Your task to perform on an android device: check data usage Image 0: 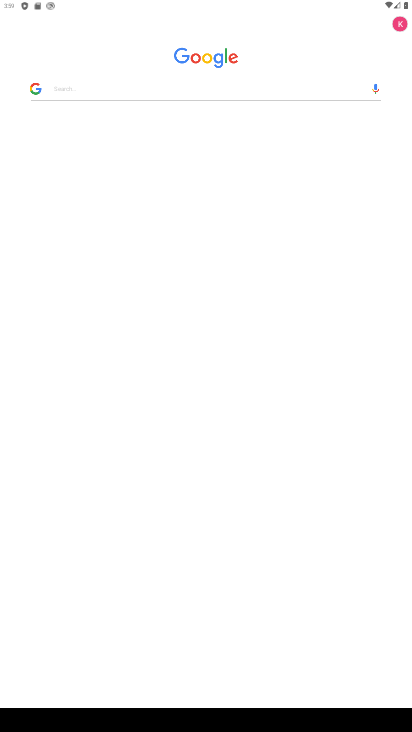
Step 0: press home button
Your task to perform on an android device: check data usage Image 1: 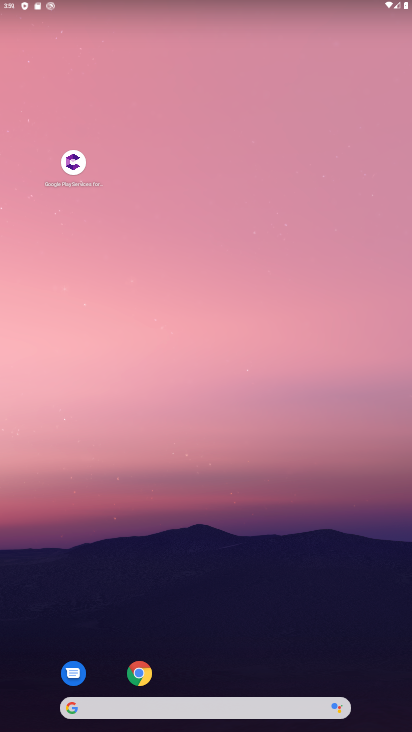
Step 1: drag from (180, 674) to (185, 92)
Your task to perform on an android device: check data usage Image 2: 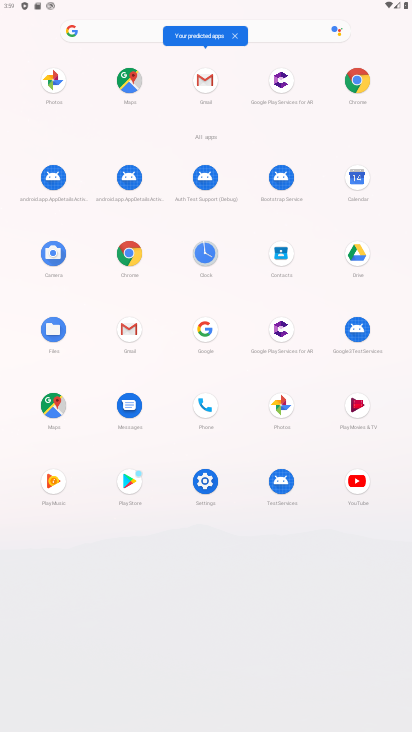
Step 2: click (202, 471)
Your task to perform on an android device: check data usage Image 3: 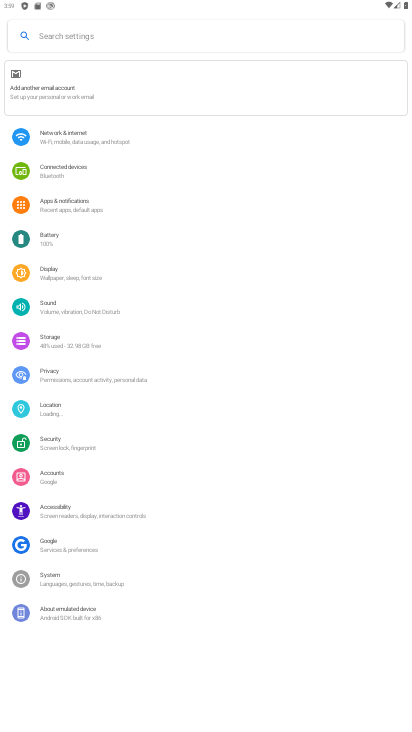
Step 3: click (61, 132)
Your task to perform on an android device: check data usage Image 4: 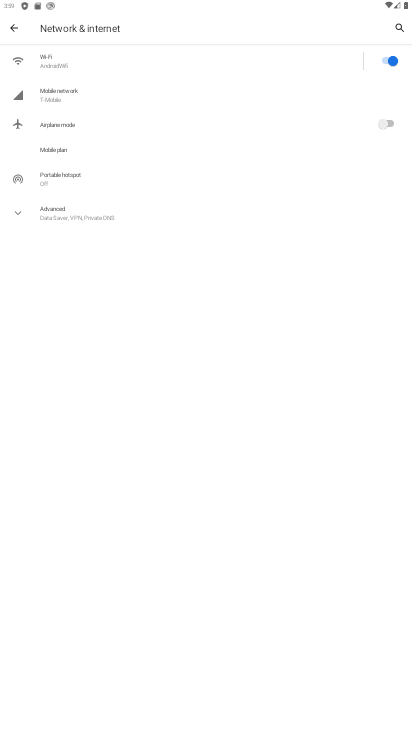
Step 4: click (54, 100)
Your task to perform on an android device: check data usage Image 5: 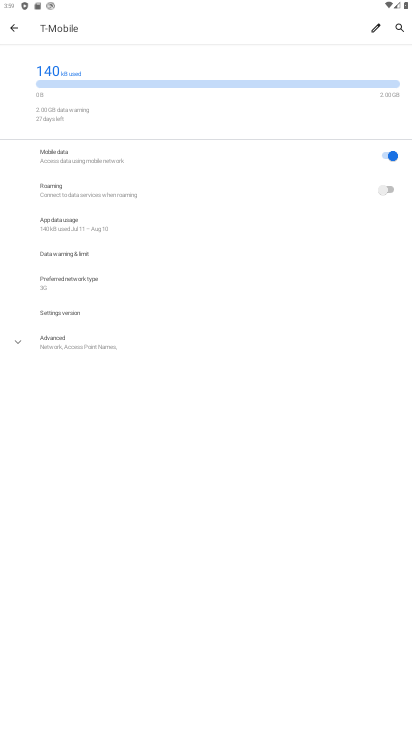
Step 5: click (48, 340)
Your task to perform on an android device: check data usage Image 6: 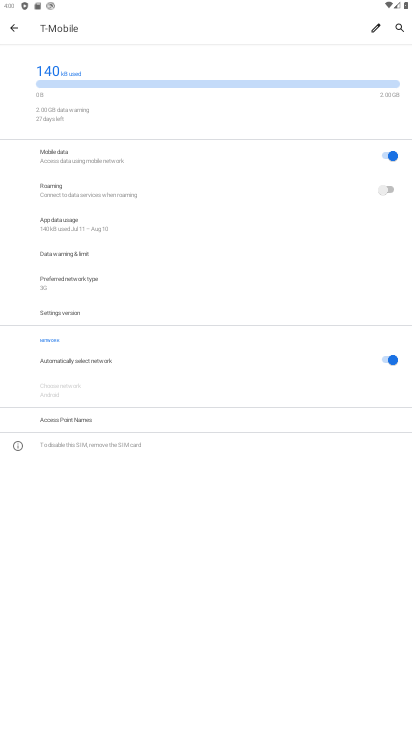
Step 6: task complete